Your task to perform on an android device: What's on my calendar tomorrow? Image 0: 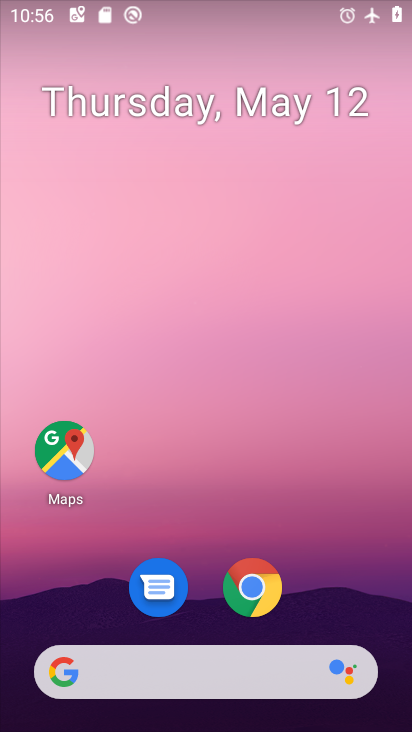
Step 0: drag from (388, 637) to (252, 140)
Your task to perform on an android device: What's on my calendar tomorrow? Image 1: 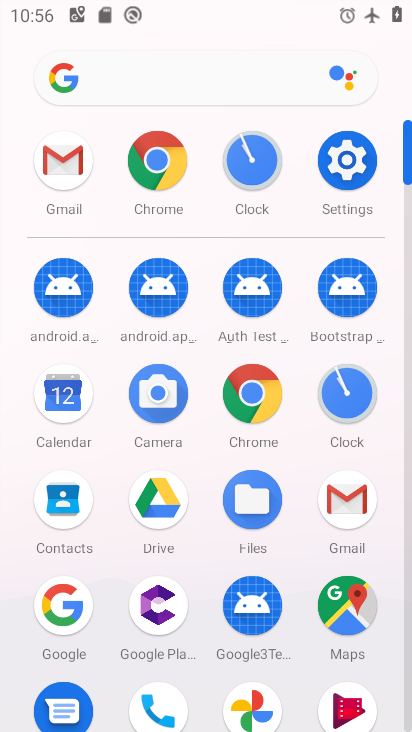
Step 1: click (69, 418)
Your task to perform on an android device: What's on my calendar tomorrow? Image 2: 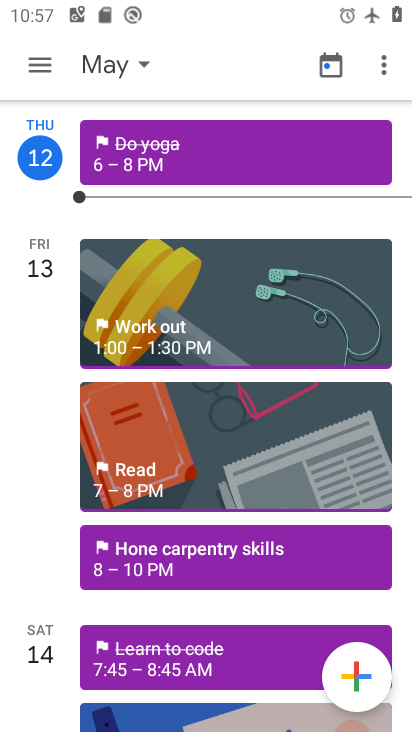
Step 2: click (104, 70)
Your task to perform on an android device: What's on my calendar tomorrow? Image 3: 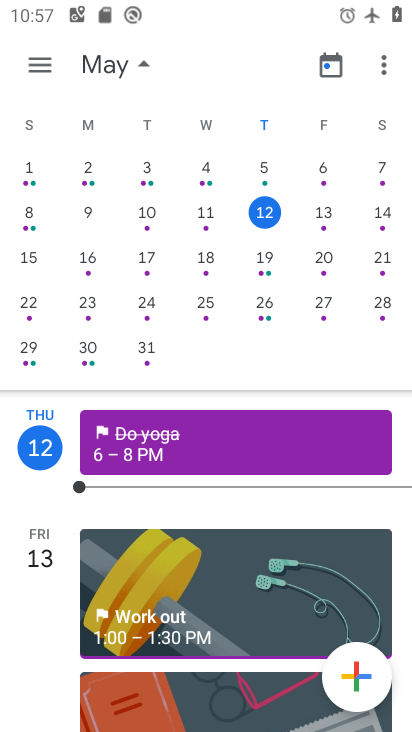
Step 3: click (387, 214)
Your task to perform on an android device: What's on my calendar tomorrow? Image 4: 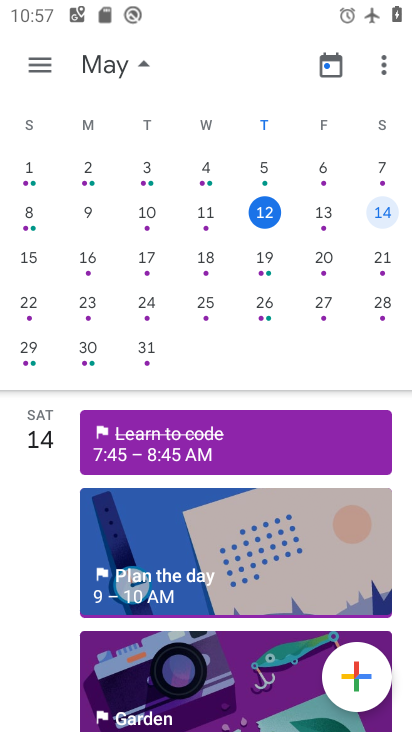
Step 4: task complete